Your task to perform on an android device: Open Android settings Image 0: 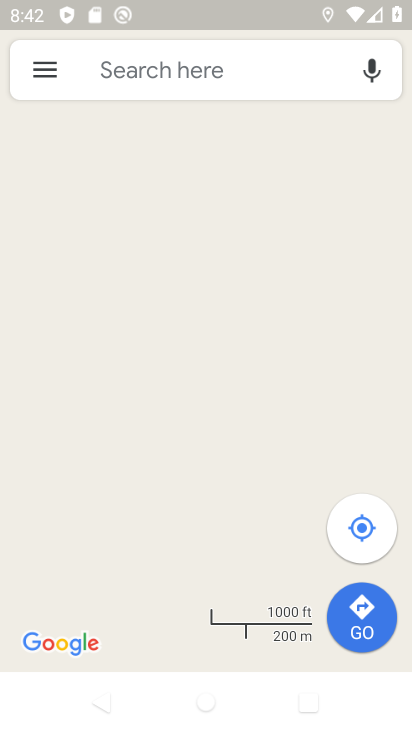
Step 0: press home button
Your task to perform on an android device: Open Android settings Image 1: 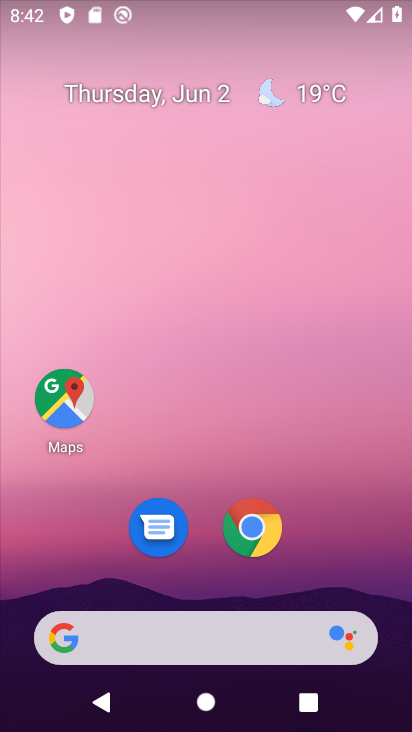
Step 1: drag from (297, 532) to (243, 99)
Your task to perform on an android device: Open Android settings Image 2: 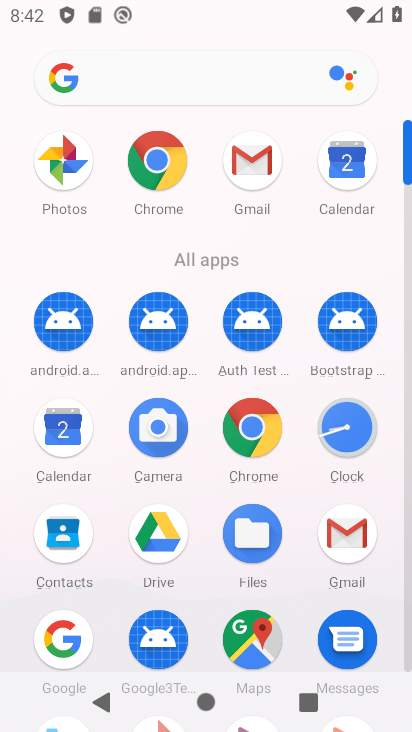
Step 2: drag from (302, 567) to (306, 210)
Your task to perform on an android device: Open Android settings Image 3: 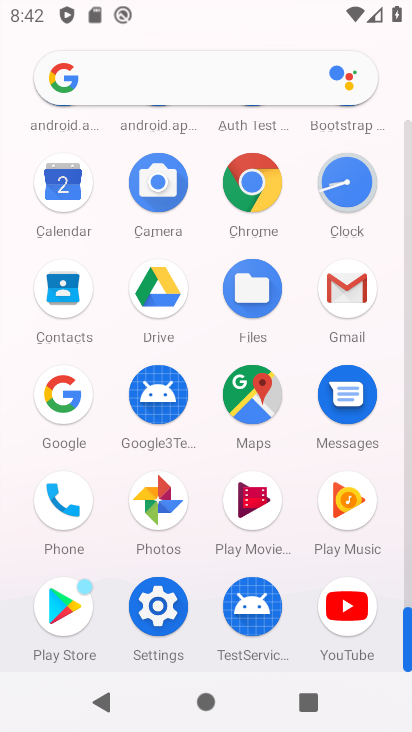
Step 3: click (165, 618)
Your task to perform on an android device: Open Android settings Image 4: 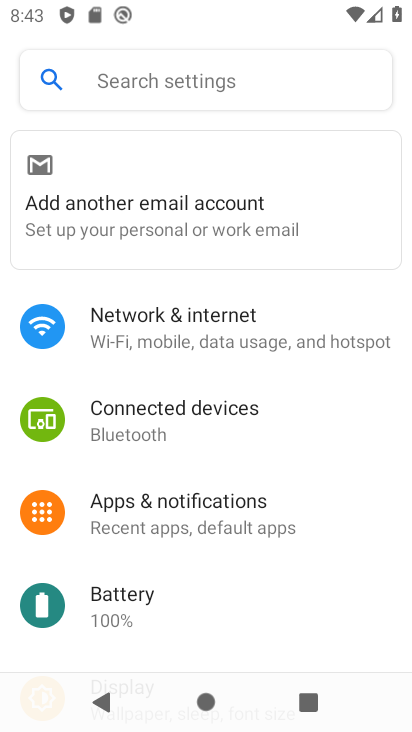
Step 4: task complete